Your task to perform on an android device: Clear all items from cart on ebay. Search for macbook pro 13 inch on ebay, select the first entry, add it to the cart, then select checkout. Image 0: 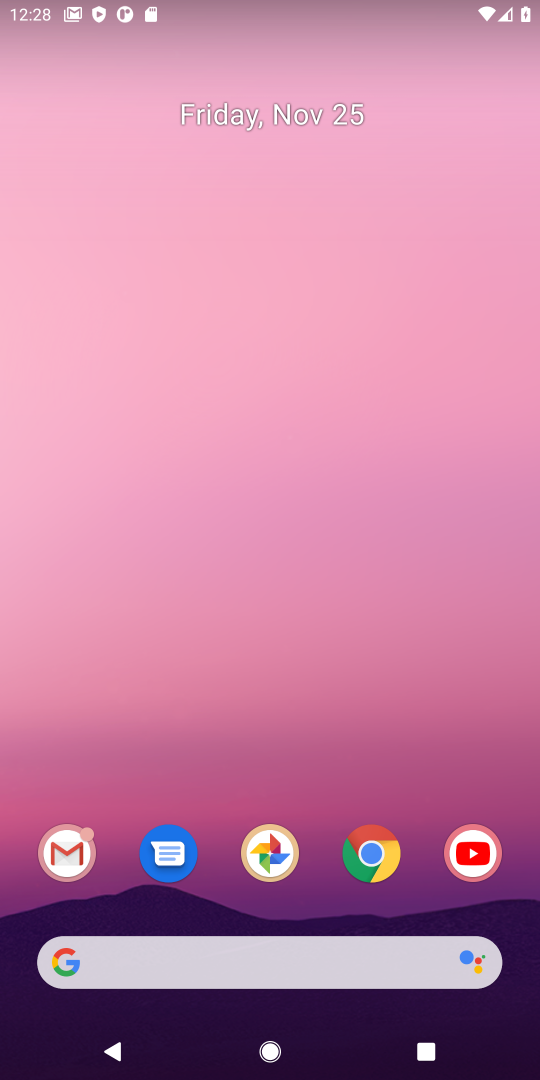
Step 0: click (405, 975)
Your task to perform on an android device: Clear all items from cart on ebay. Search for macbook pro 13 inch on ebay, select the first entry, add it to the cart, then select checkout. Image 1: 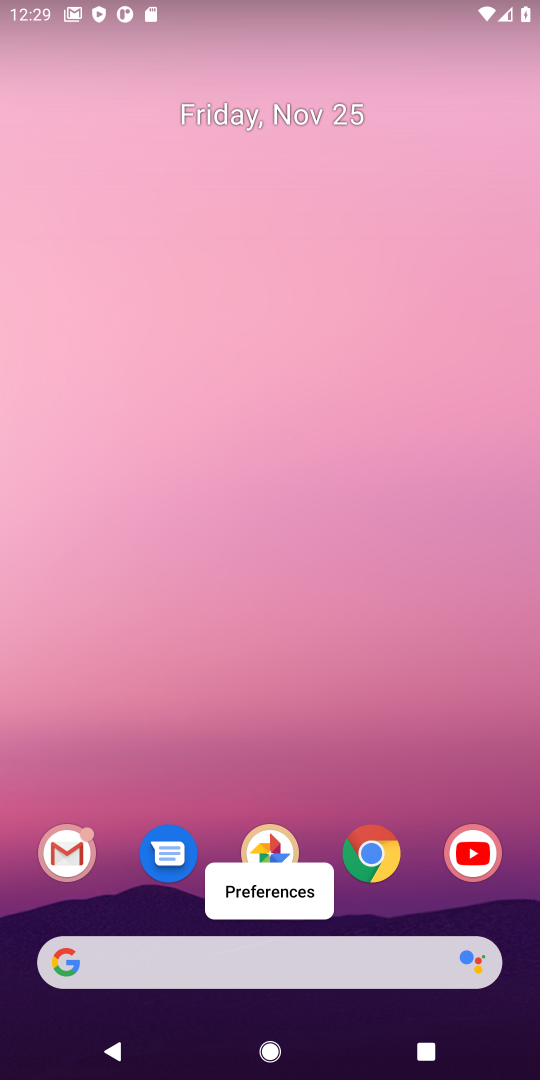
Step 1: click (252, 962)
Your task to perform on an android device: Clear all items from cart on ebay. Search for macbook pro 13 inch on ebay, select the first entry, add it to the cart, then select checkout. Image 2: 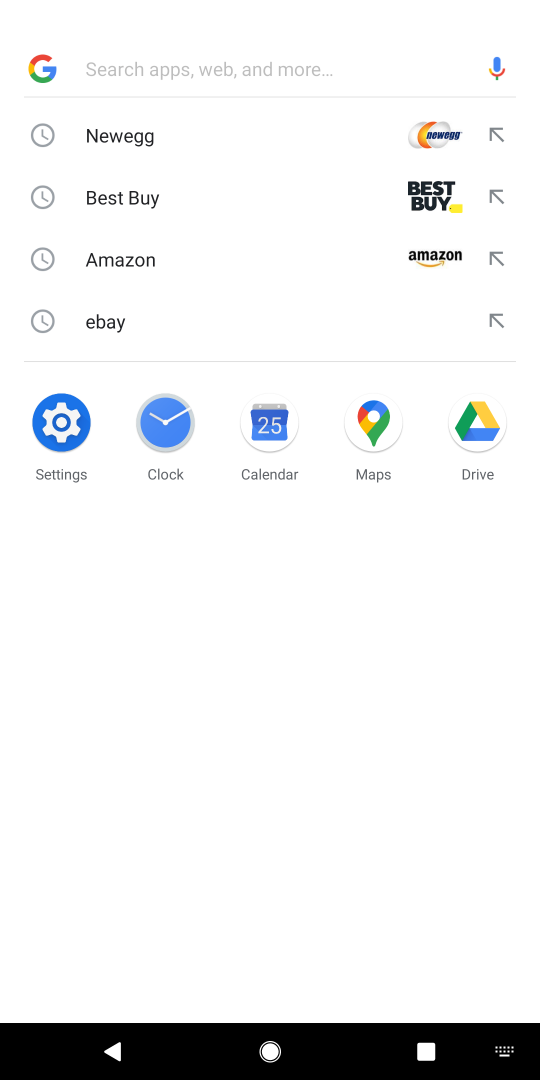
Step 2: task complete